Your task to perform on an android device: empty trash in the gmail app Image 0: 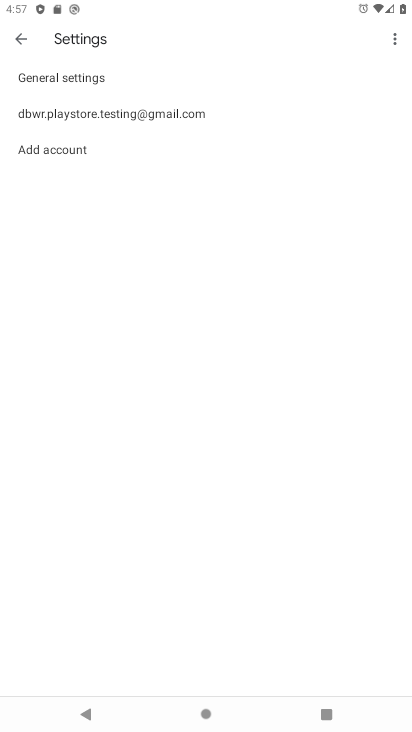
Step 0: click (200, 716)
Your task to perform on an android device: empty trash in the gmail app Image 1: 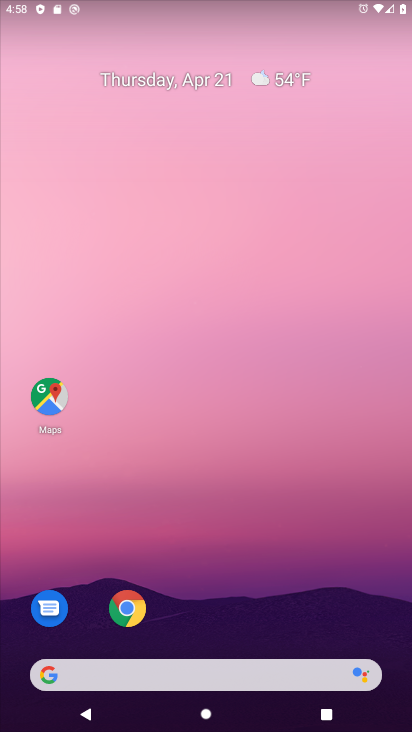
Step 1: drag from (202, 621) to (144, 113)
Your task to perform on an android device: empty trash in the gmail app Image 2: 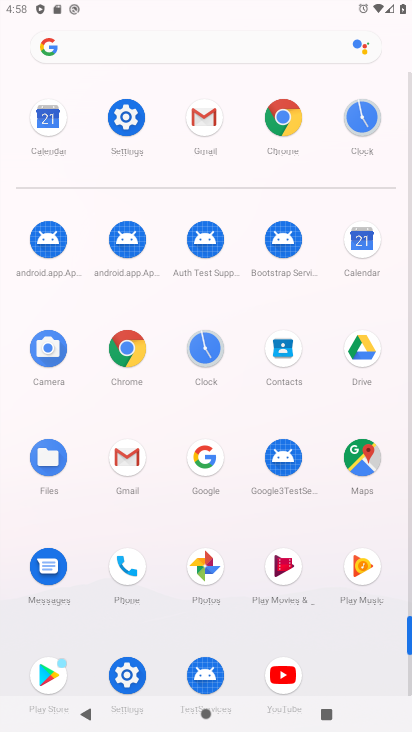
Step 2: click (200, 119)
Your task to perform on an android device: empty trash in the gmail app Image 3: 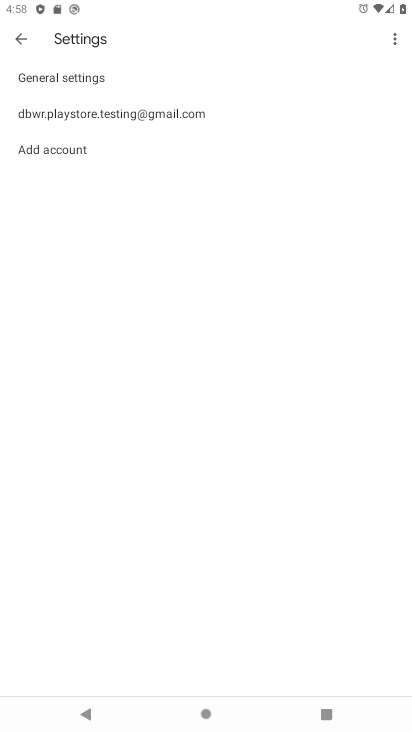
Step 3: click (398, 38)
Your task to perform on an android device: empty trash in the gmail app Image 4: 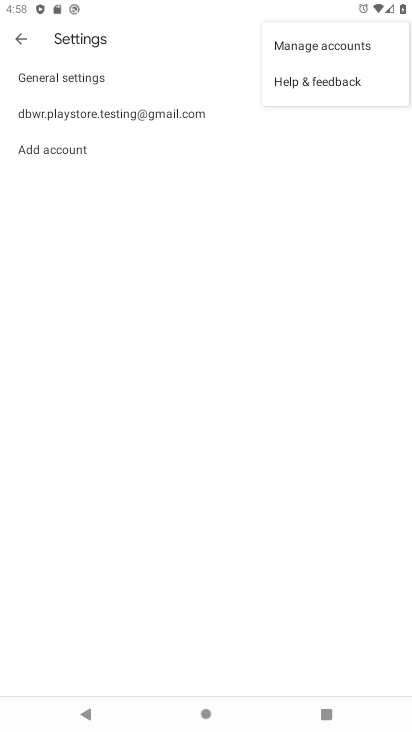
Step 4: click (219, 240)
Your task to perform on an android device: empty trash in the gmail app Image 5: 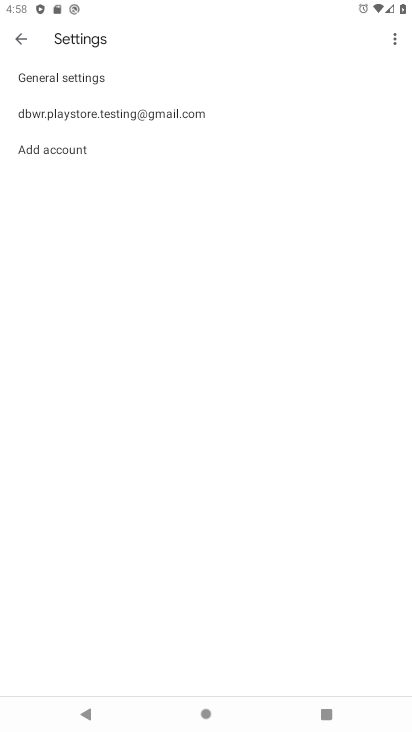
Step 5: click (20, 41)
Your task to perform on an android device: empty trash in the gmail app Image 6: 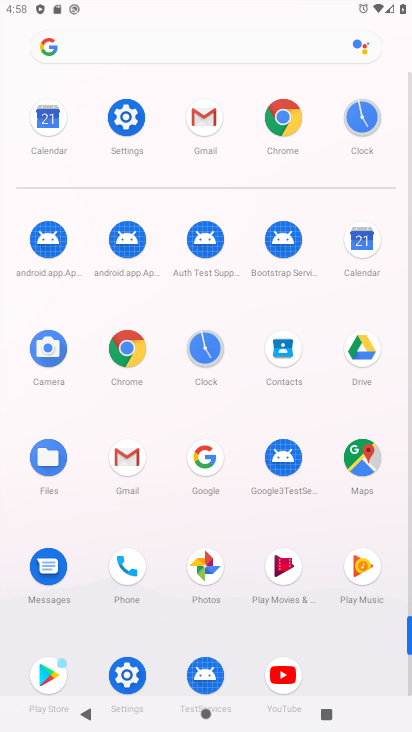
Step 6: click (205, 114)
Your task to perform on an android device: empty trash in the gmail app Image 7: 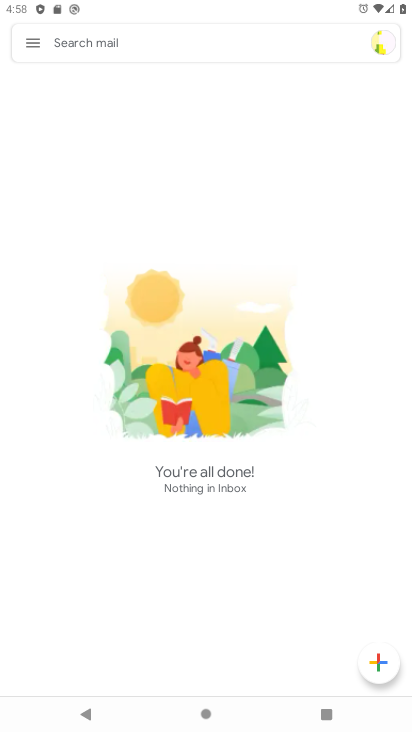
Step 7: click (22, 39)
Your task to perform on an android device: empty trash in the gmail app Image 8: 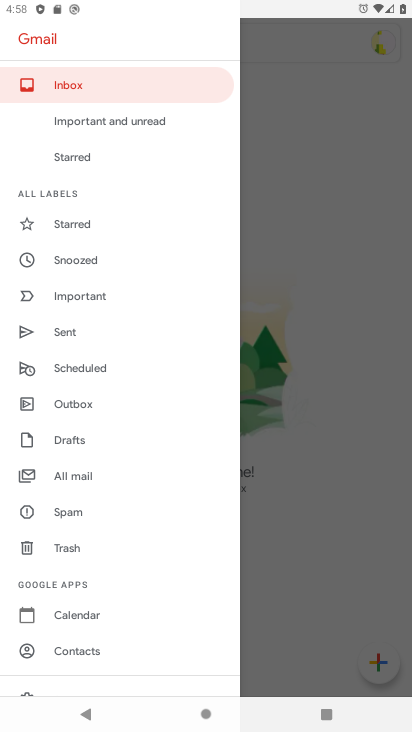
Step 8: drag from (178, 587) to (167, 211)
Your task to perform on an android device: empty trash in the gmail app Image 9: 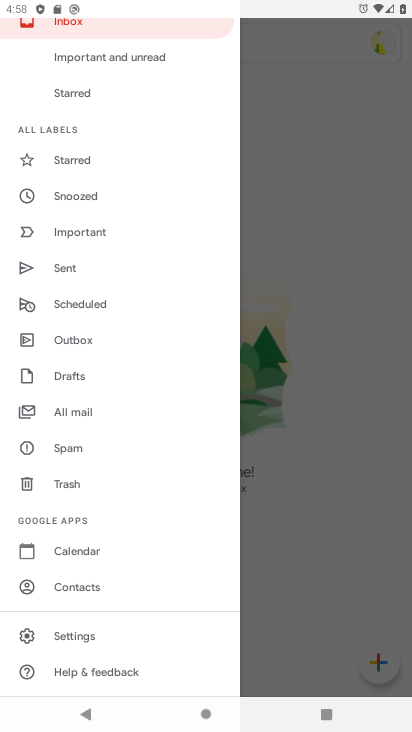
Step 9: click (59, 634)
Your task to perform on an android device: empty trash in the gmail app Image 10: 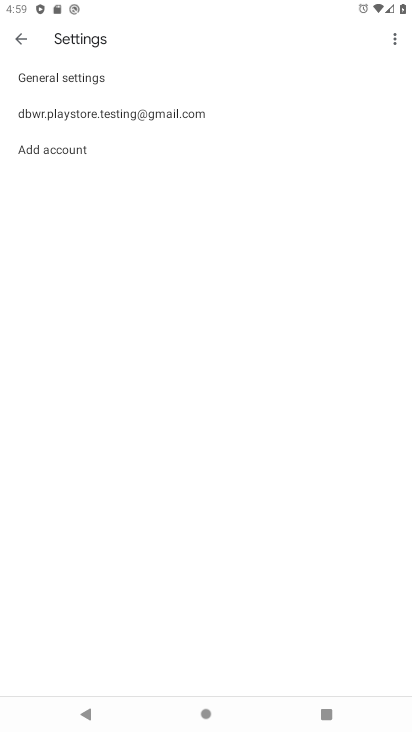
Step 10: click (88, 78)
Your task to perform on an android device: empty trash in the gmail app Image 11: 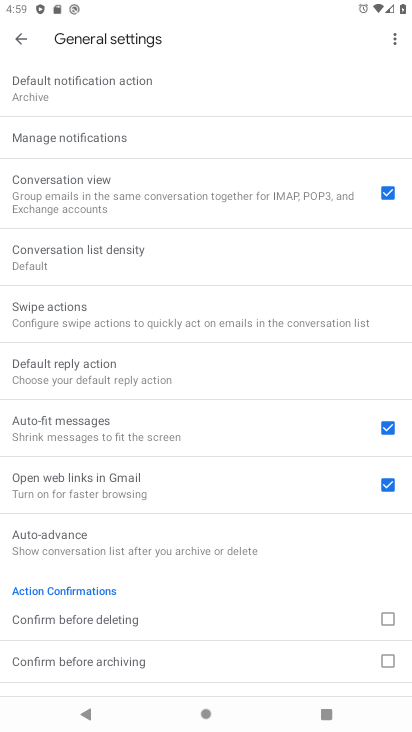
Step 11: task complete